Your task to perform on an android device: toggle show notifications on the lock screen Image 0: 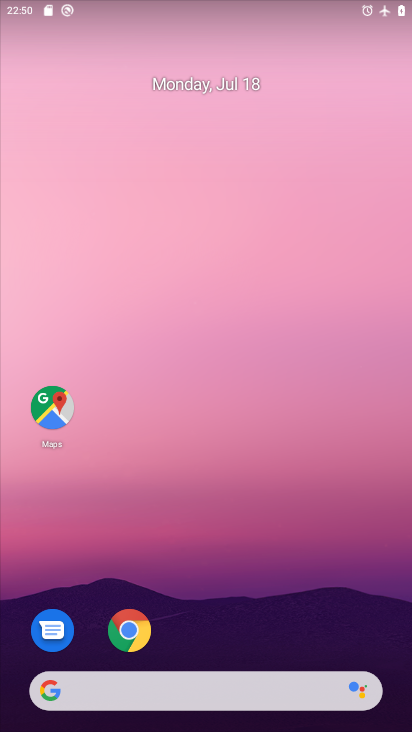
Step 0: drag from (244, 607) to (231, 353)
Your task to perform on an android device: toggle show notifications on the lock screen Image 1: 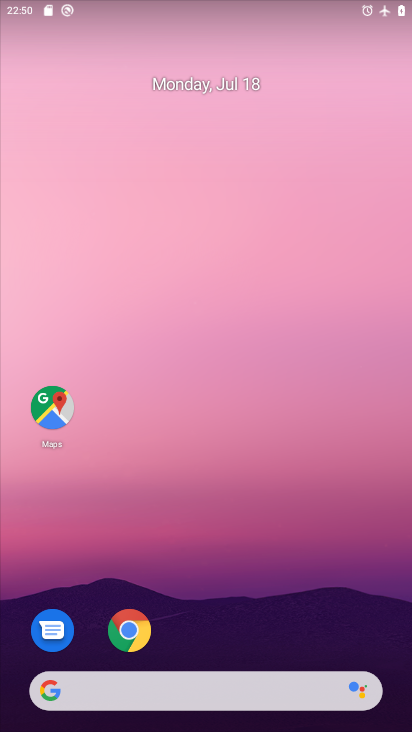
Step 1: drag from (288, 634) to (221, 245)
Your task to perform on an android device: toggle show notifications on the lock screen Image 2: 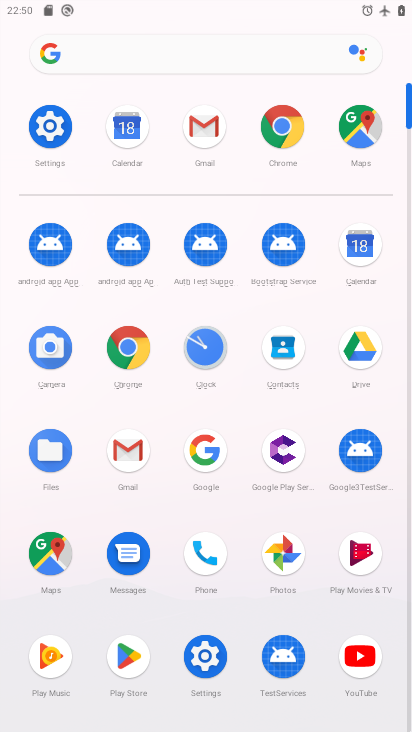
Step 2: click (55, 127)
Your task to perform on an android device: toggle show notifications on the lock screen Image 3: 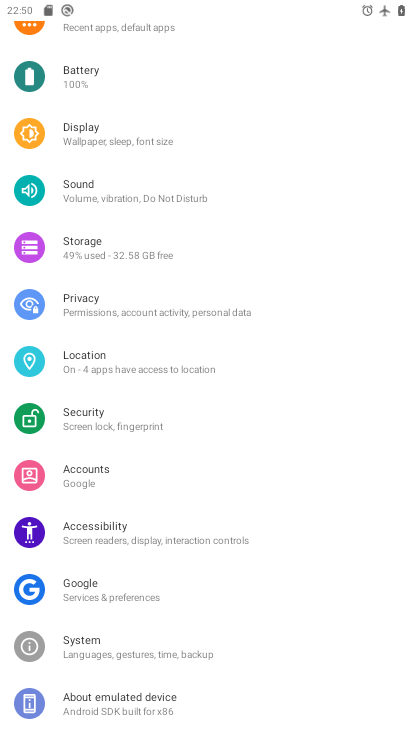
Step 3: drag from (134, 135) to (194, 594)
Your task to perform on an android device: toggle show notifications on the lock screen Image 4: 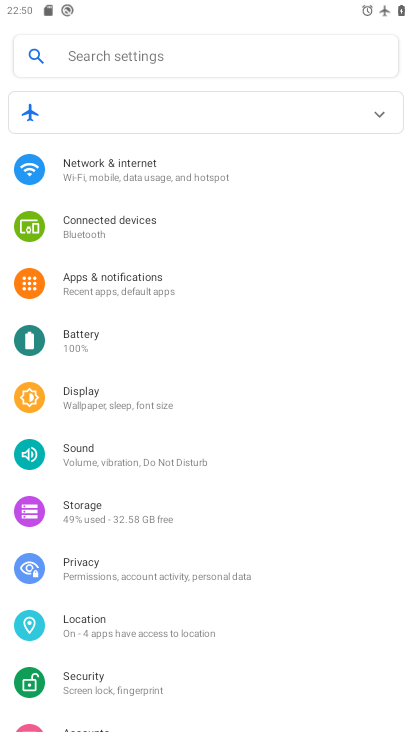
Step 4: click (159, 262)
Your task to perform on an android device: toggle show notifications on the lock screen Image 5: 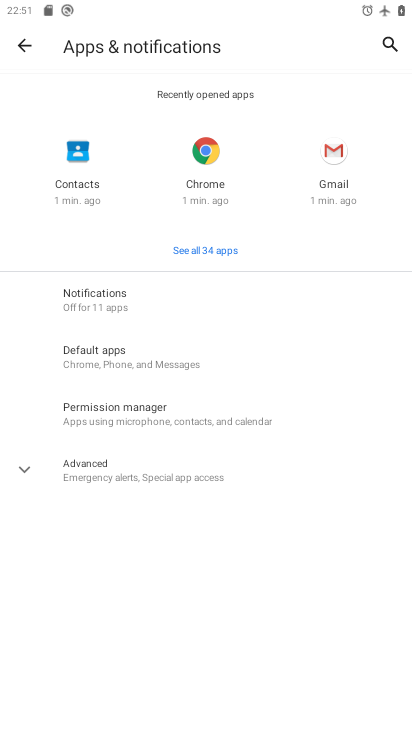
Step 5: click (137, 304)
Your task to perform on an android device: toggle show notifications on the lock screen Image 6: 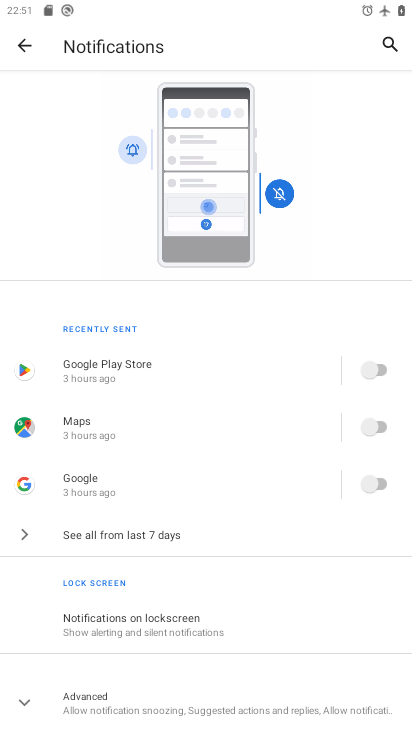
Step 6: click (175, 610)
Your task to perform on an android device: toggle show notifications on the lock screen Image 7: 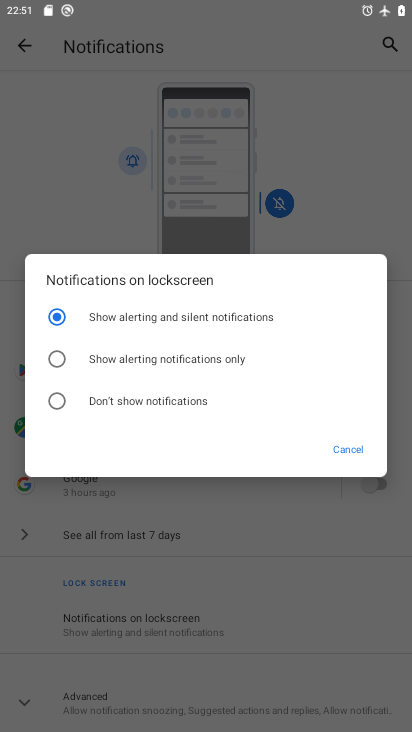
Step 7: task complete